Your task to perform on an android device: Search for Italian restaurants on Maps Image 0: 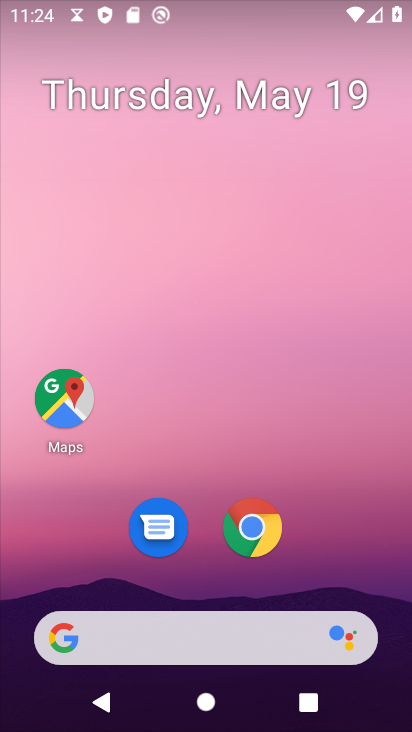
Step 0: click (71, 410)
Your task to perform on an android device: Search for Italian restaurants on Maps Image 1: 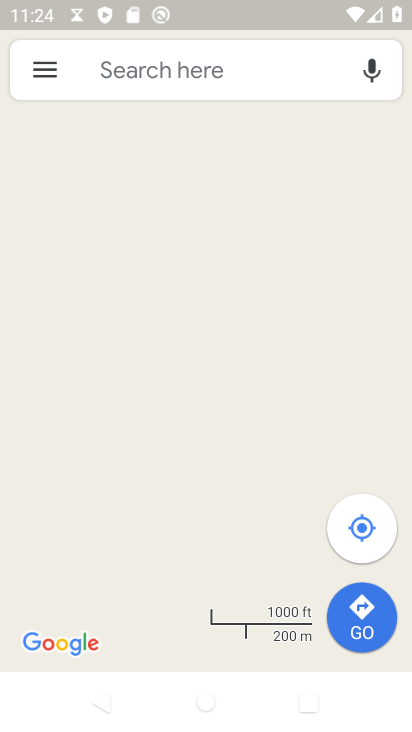
Step 1: click (222, 79)
Your task to perform on an android device: Search for Italian restaurants on Maps Image 2: 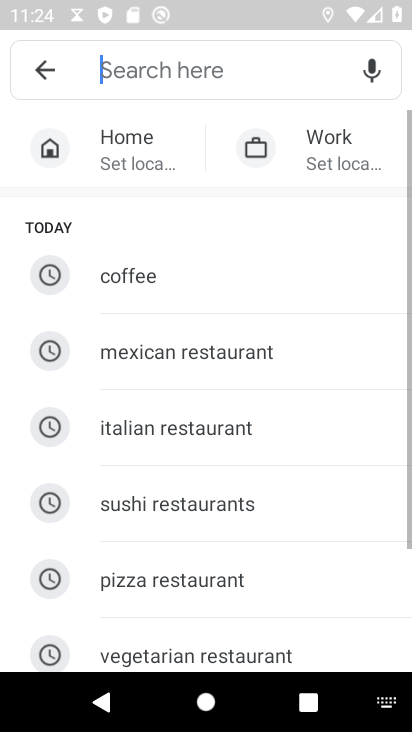
Step 2: type "italian restaurants"
Your task to perform on an android device: Search for Italian restaurants on Maps Image 3: 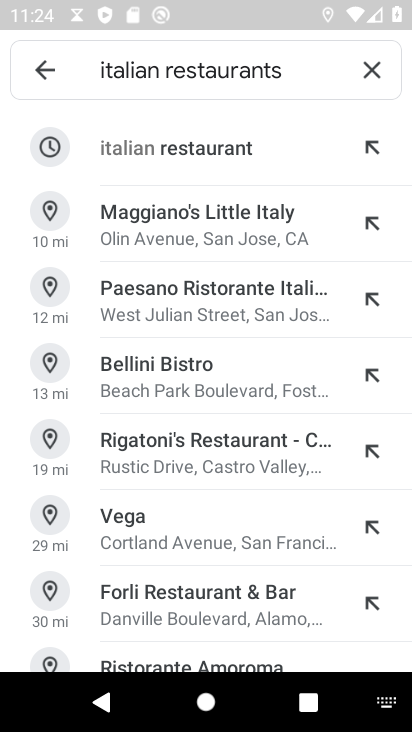
Step 3: click (232, 157)
Your task to perform on an android device: Search for Italian restaurants on Maps Image 4: 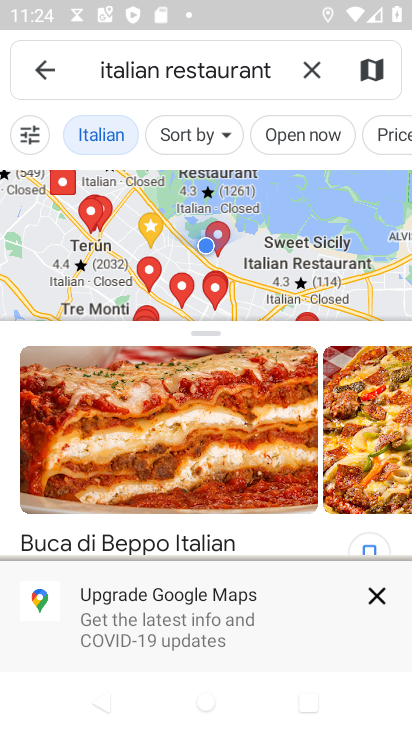
Step 4: task complete